Your task to perform on an android device: open wifi settings Image 0: 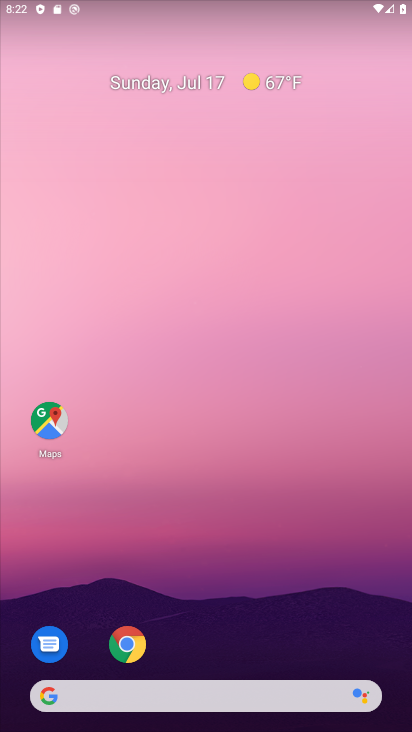
Step 0: drag from (236, 565) to (196, 174)
Your task to perform on an android device: open wifi settings Image 1: 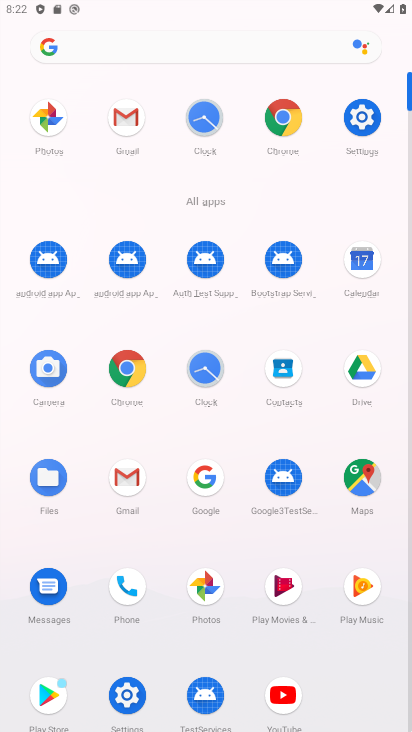
Step 1: click (360, 111)
Your task to perform on an android device: open wifi settings Image 2: 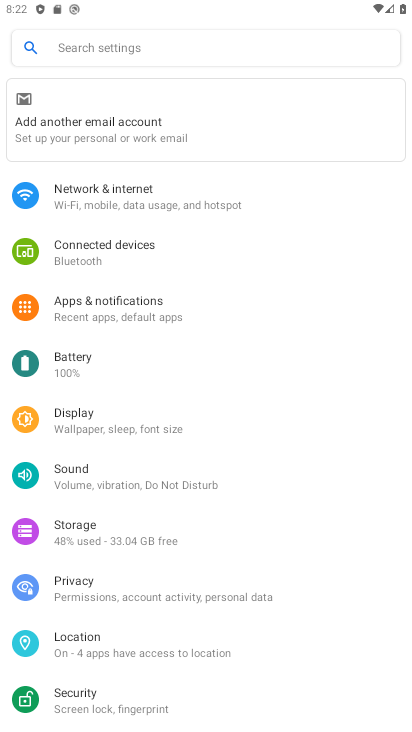
Step 2: click (110, 184)
Your task to perform on an android device: open wifi settings Image 3: 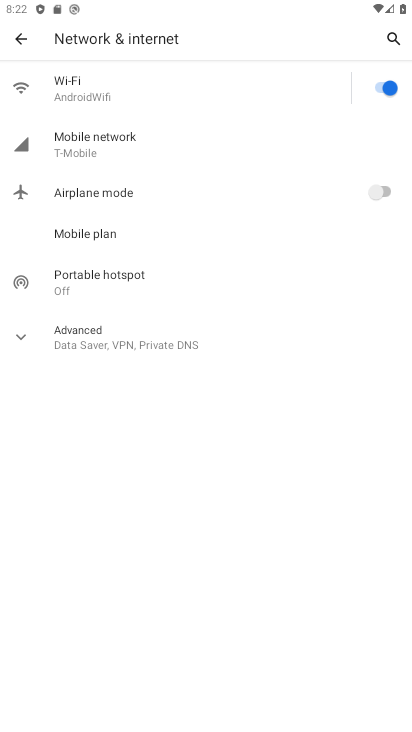
Step 3: click (177, 95)
Your task to perform on an android device: open wifi settings Image 4: 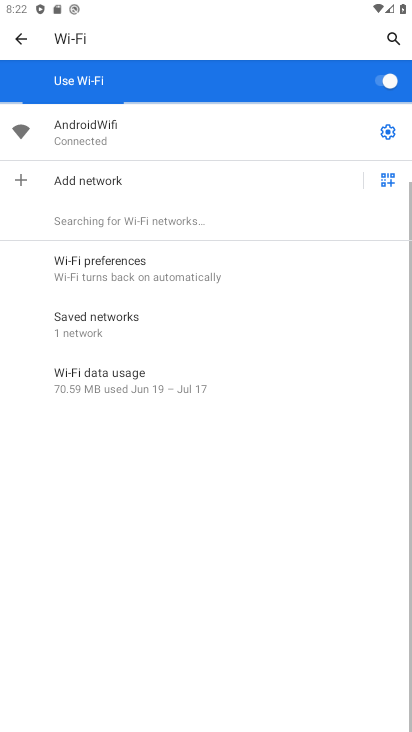
Step 4: task complete